Your task to perform on an android device: Turn on the flashlight Image 0: 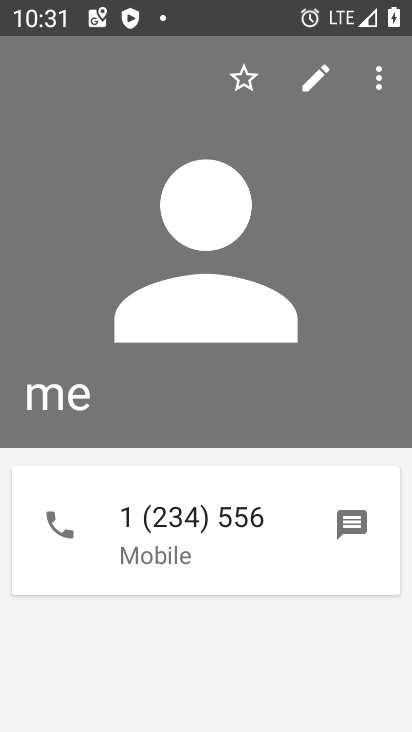
Step 0: press home button
Your task to perform on an android device: Turn on the flashlight Image 1: 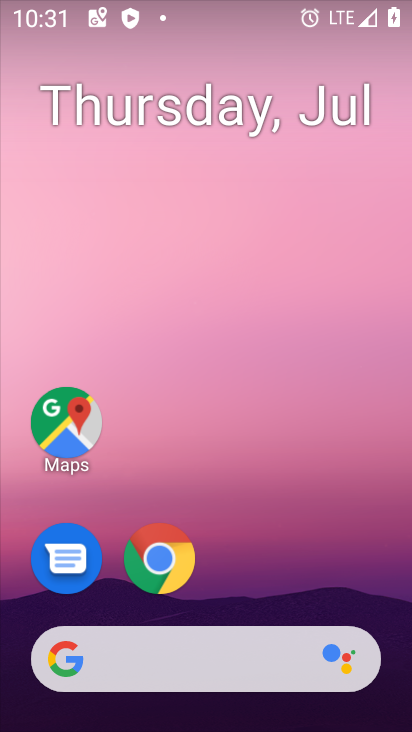
Step 1: drag from (285, 6) to (303, 491)
Your task to perform on an android device: Turn on the flashlight Image 2: 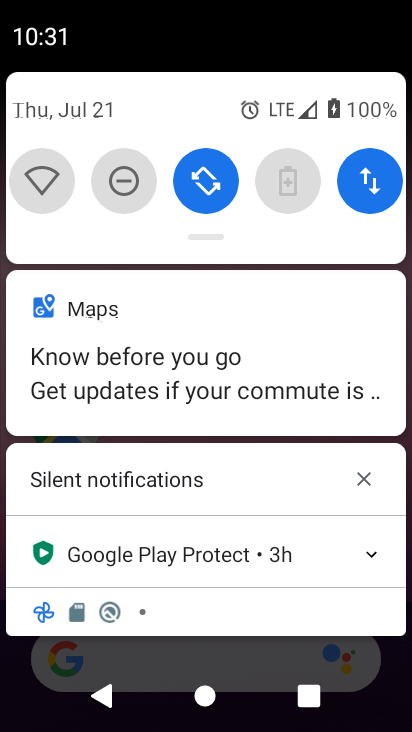
Step 2: drag from (158, 130) to (191, 469)
Your task to perform on an android device: Turn on the flashlight Image 3: 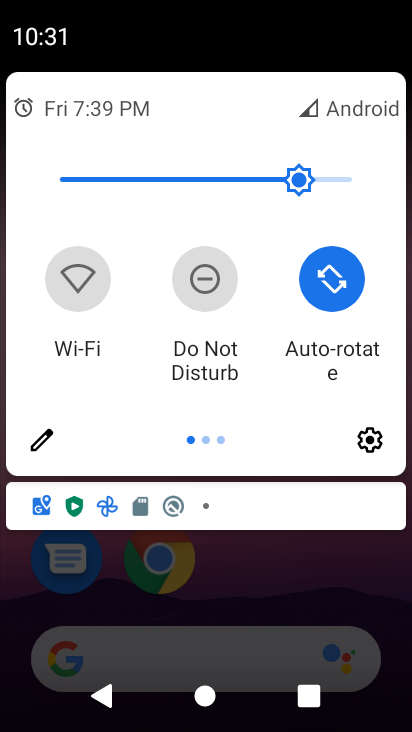
Step 3: click (40, 446)
Your task to perform on an android device: Turn on the flashlight Image 4: 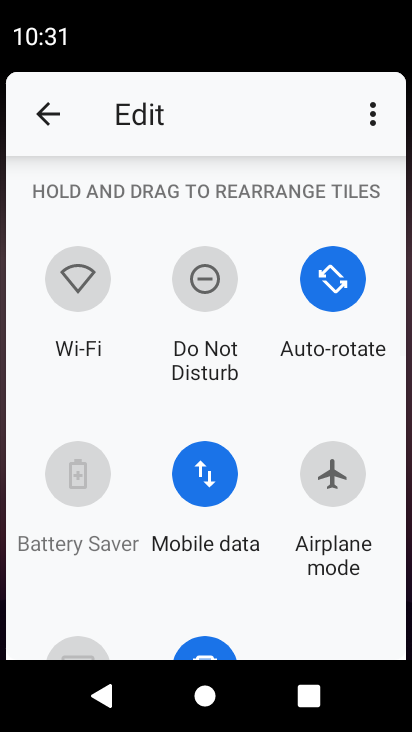
Step 4: task complete